Your task to perform on an android device: toggle show notifications on the lock screen Image 0: 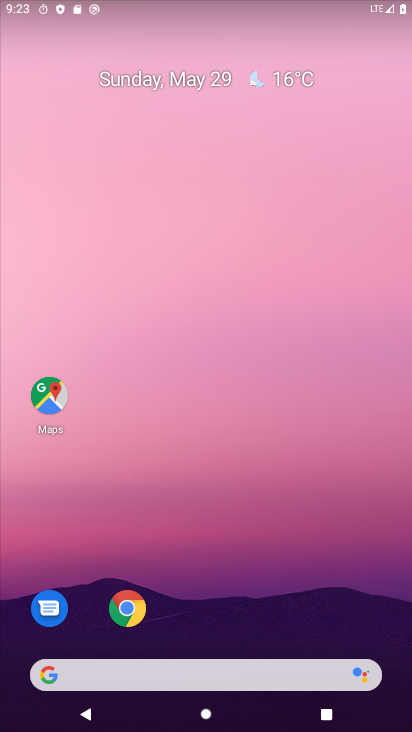
Step 0: drag from (217, 631) to (221, 143)
Your task to perform on an android device: toggle show notifications on the lock screen Image 1: 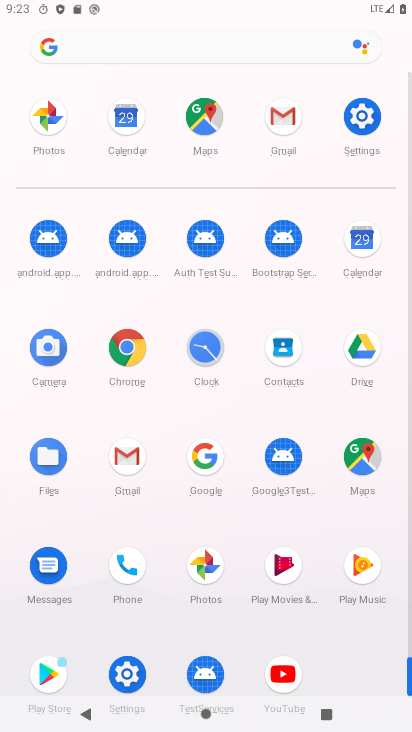
Step 1: click (50, 135)
Your task to perform on an android device: toggle show notifications on the lock screen Image 2: 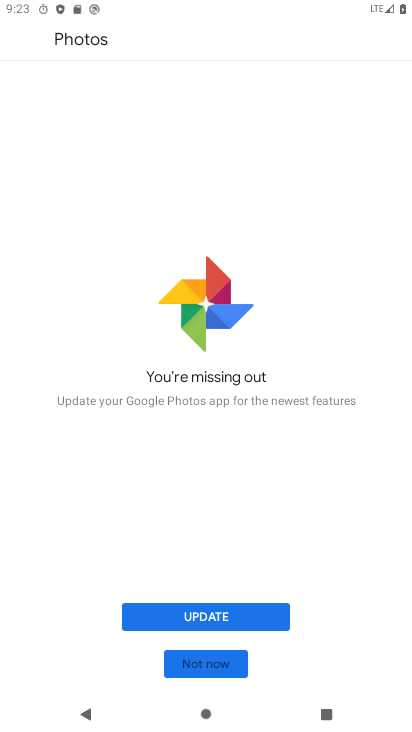
Step 2: click (184, 619)
Your task to perform on an android device: toggle show notifications on the lock screen Image 3: 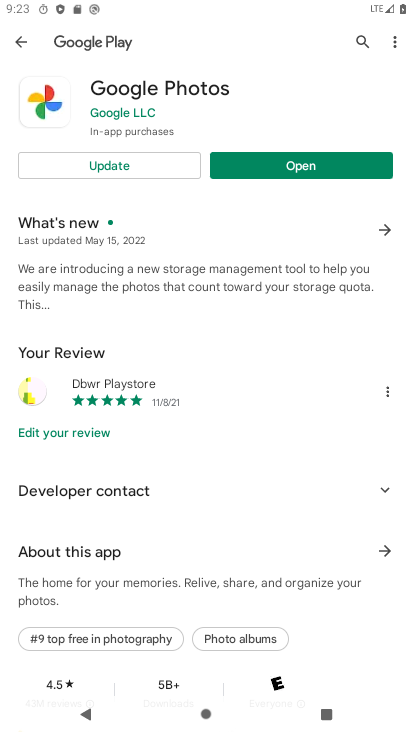
Step 3: click (70, 162)
Your task to perform on an android device: toggle show notifications on the lock screen Image 4: 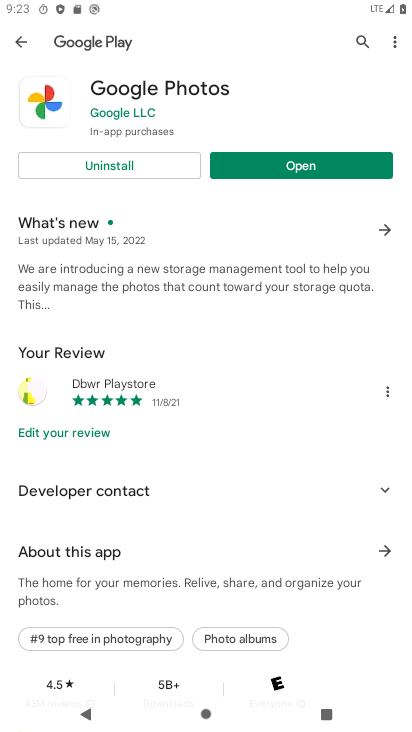
Step 4: click (291, 163)
Your task to perform on an android device: toggle show notifications on the lock screen Image 5: 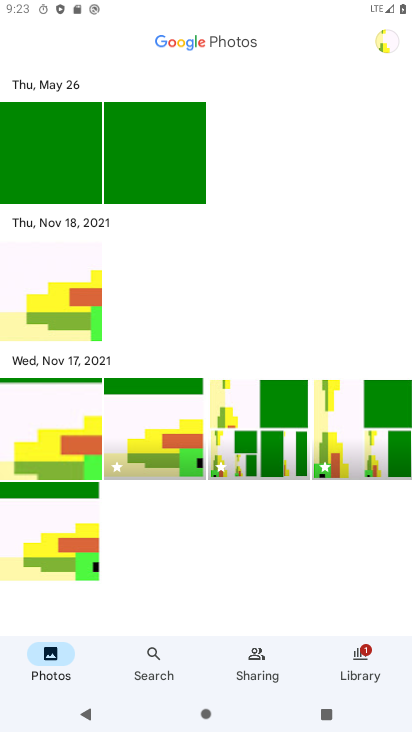
Step 5: click (359, 662)
Your task to perform on an android device: toggle show notifications on the lock screen Image 6: 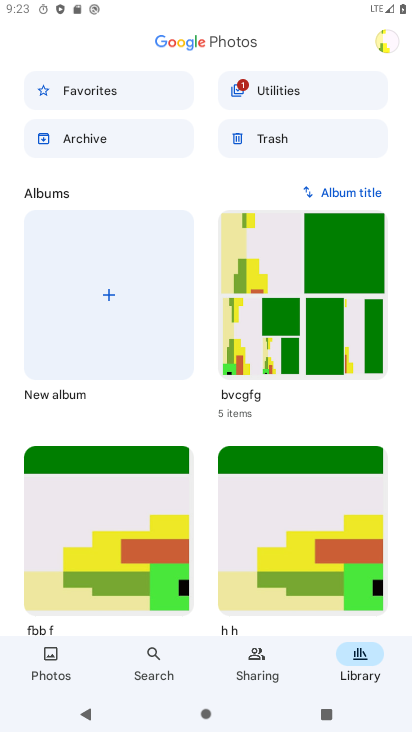
Step 6: press home button
Your task to perform on an android device: toggle show notifications on the lock screen Image 7: 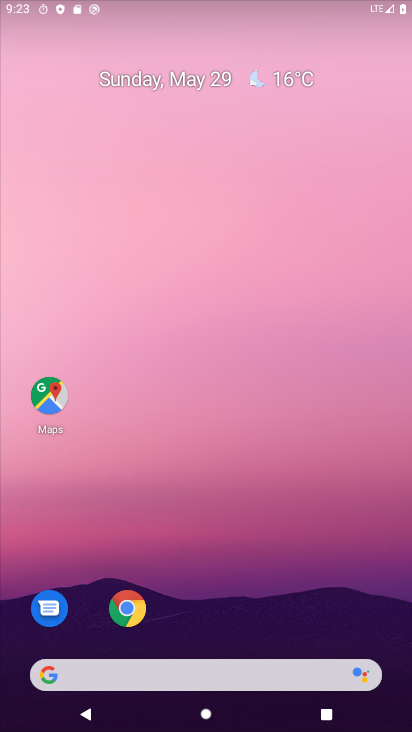
Step 7: drag from (198, 619) to (159, 4)
Your task to perform on an android device: toggle show notifications on the lock screen Image 8: 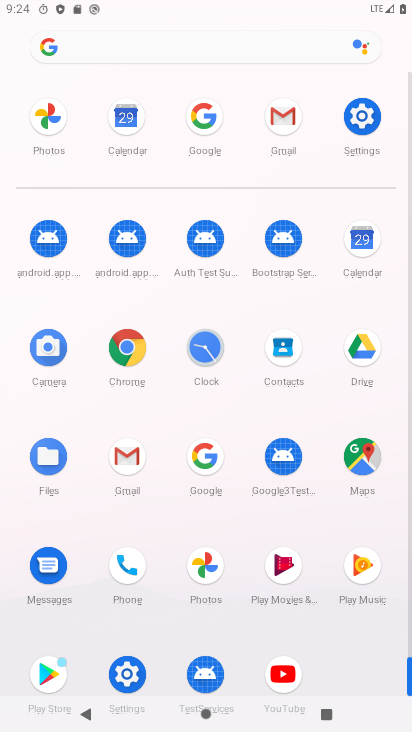
Step 8: click (278, 149)
Your task to perform on an android device: toggle show notifications on the lock screen Image 9: 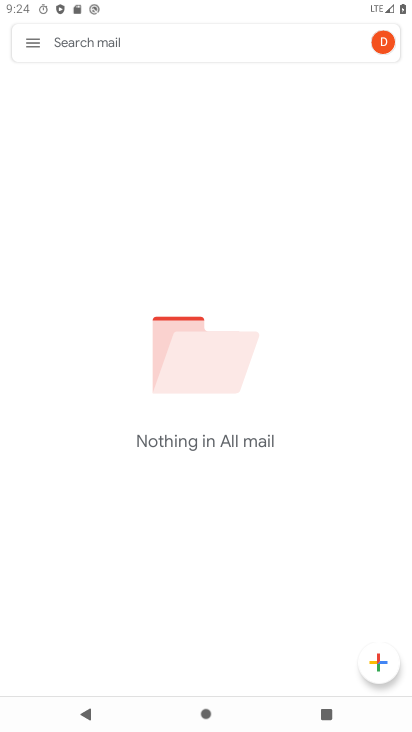
Step 9: click (44, 41)
Your task to perform on an android device: toggle show notifications on the lock screen Image 10: 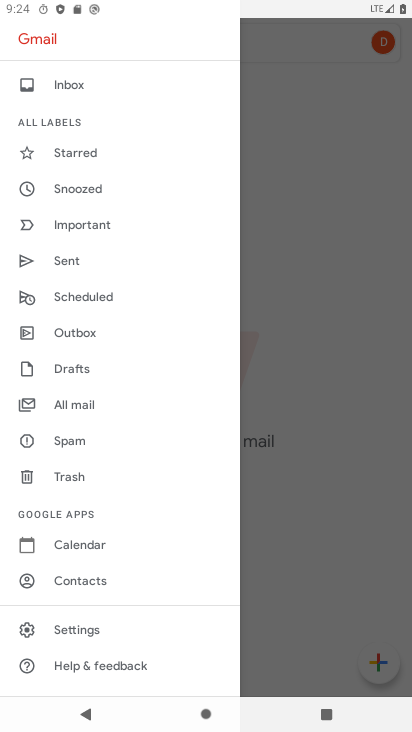
Step 10: click (73, 627)
Your task to perform on an android device: toggle show notifications on the lock screen Image 11: 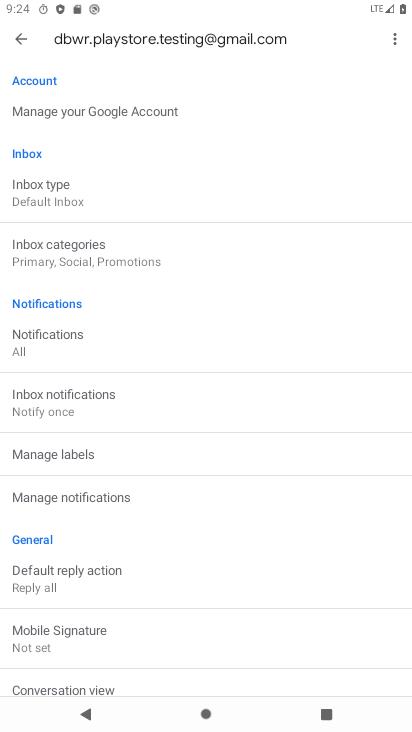
Step 11: press home button
Your task to perform on an android device: toggle show notifications on the lock screen Image 12: 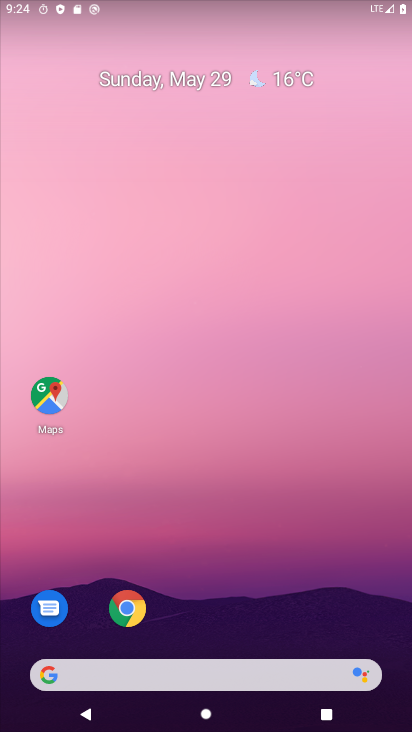
Step 12: drag from (189, 633) to (249, 11)
Your task to perform on an android device: toggle show notifications on the lock screen Image 13: 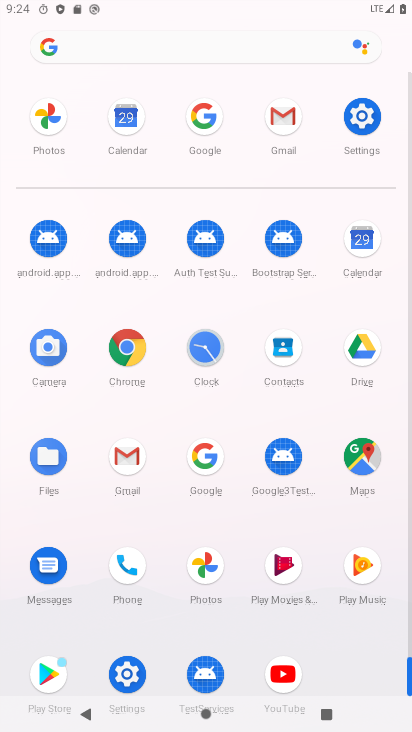
Step 13: click (360, 131)
Your task to perform on an android device: toggle show notifications on the lock screen Image 14: 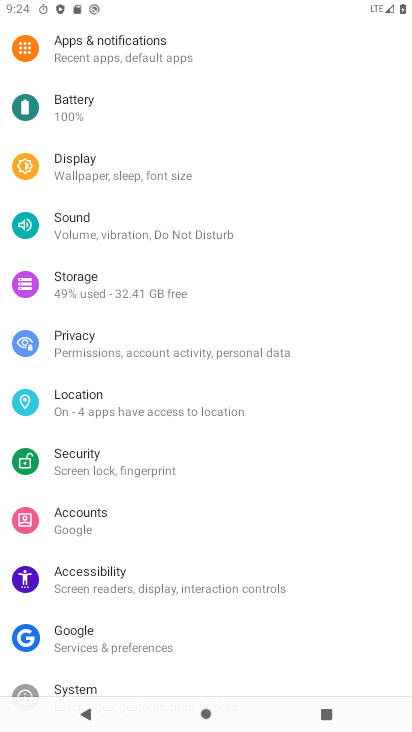
Step 14: click (105, 71)
Your task to perform on an android device: toggle show notifications on the lock screen Image 15: 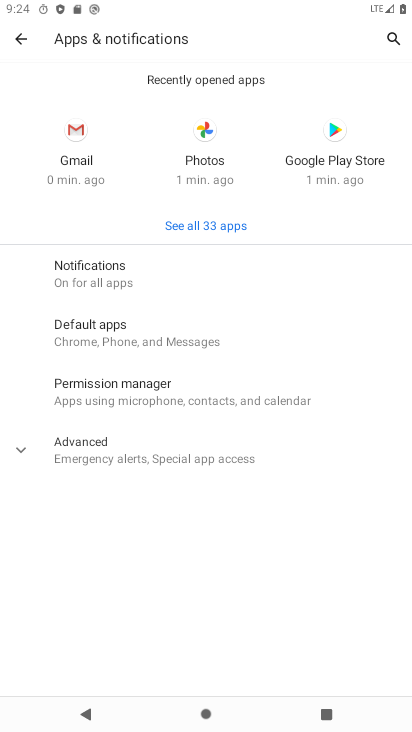
Step 15: click (80, 263)
Your task to perform on an android device: toggle show notifications on the lock screen Image 16: 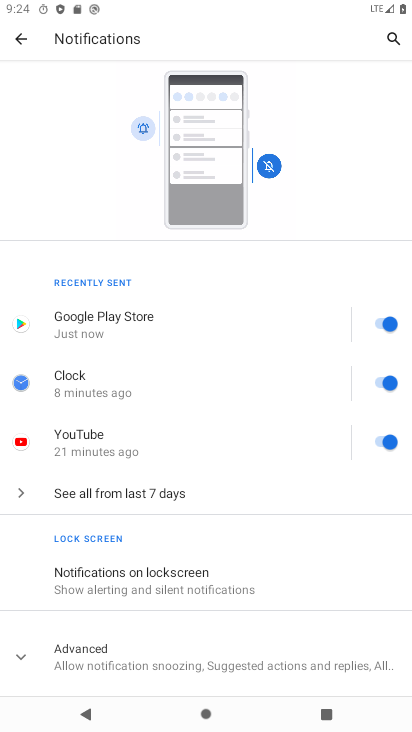
Step 16: click (102, 592)
Your task to perform on an android device: toggle show notifications on the lock screen Image 17: 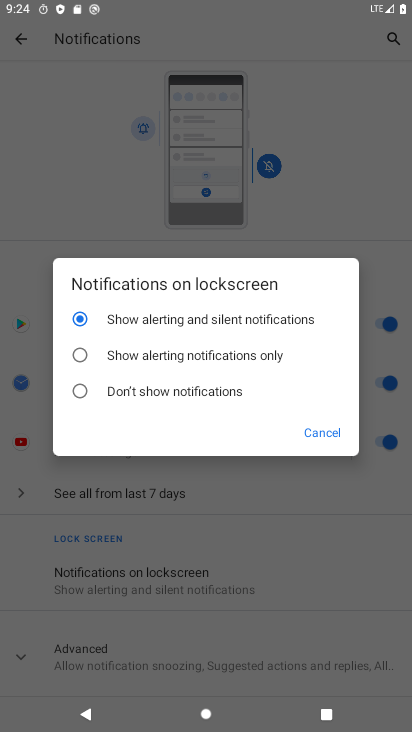
Step 17: click (83, 388)
Your task to perform on an android device: toggle show notifications on the lock screen Image 18: 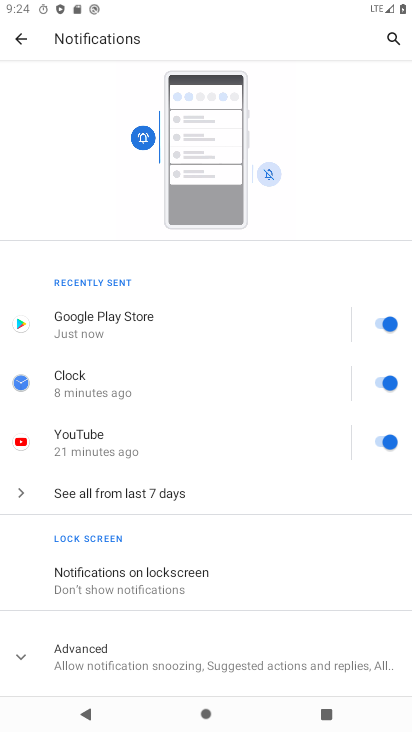
Step 18: task complete